Your task to perform on an android device: Open internet settings Image 0: 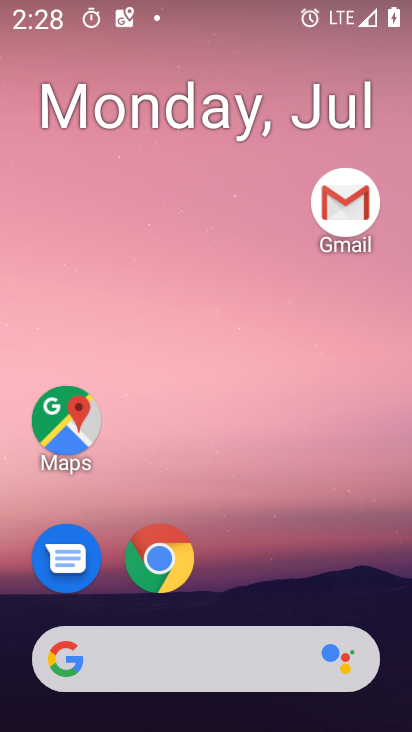
Step 0: press home button
Your task to perform on an android device: Open internet settings Image 1: 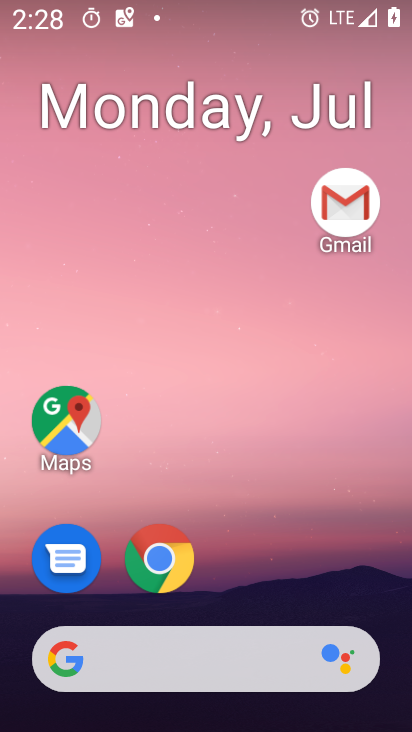
Step 1: drag from (327, 543) to (330, 72)
Your task to perform on an android device: Open internet settings Image 2: 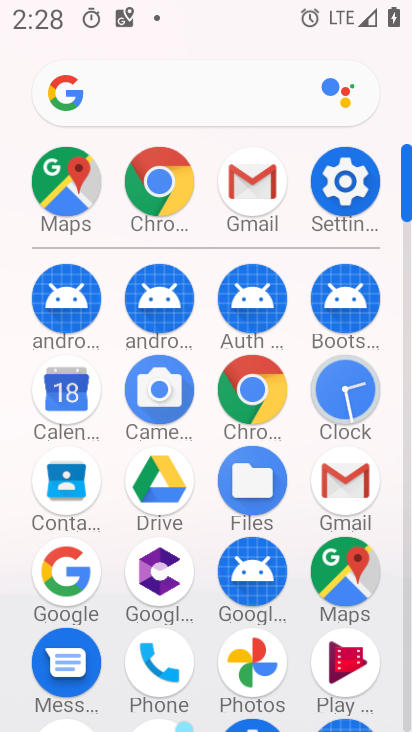
Step 2: click (351, 198)
Your task to perform on an android device: Open internet settings Image 3: 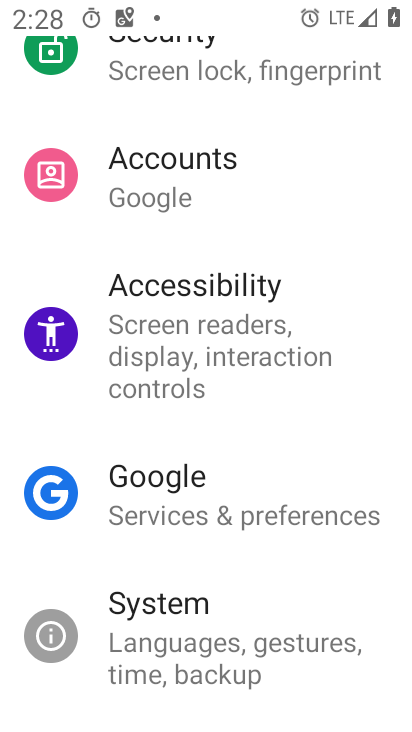
Step 3: drag from (351, 198) to (363, 262)
Your task to perform on an android device: Open internet settings Image 4: 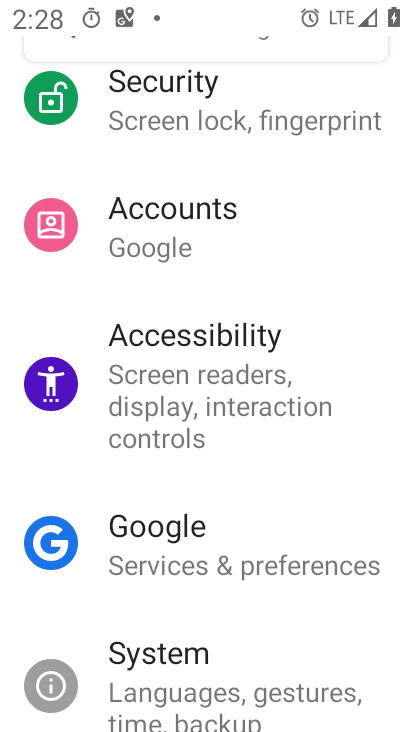
Step 4: drag from (358, 197) to (359, 286)
Your task to perform on an android device: Open internet settings Image 5: 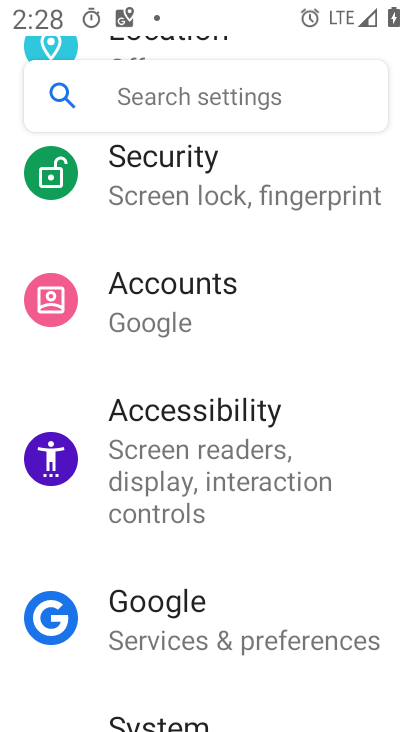
Step 5: drag from (359, 190) to (362, 301)
Your task to perform on an android device: Open internet settings Image 6: 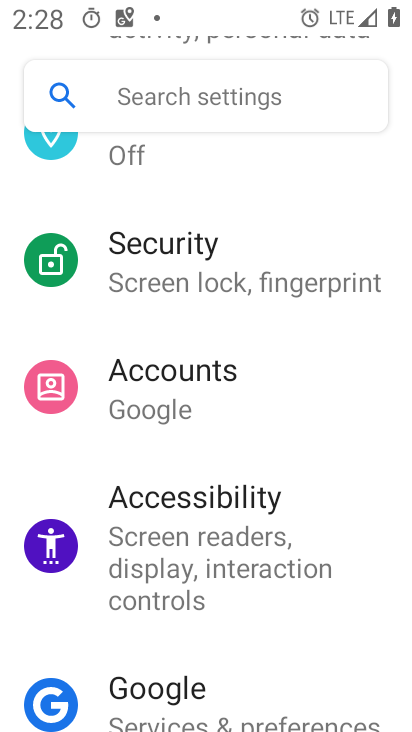
Step 6: drag from (362, 209) to (369, 304)
Your task to perform on an android device: Open internet settings Image 7: 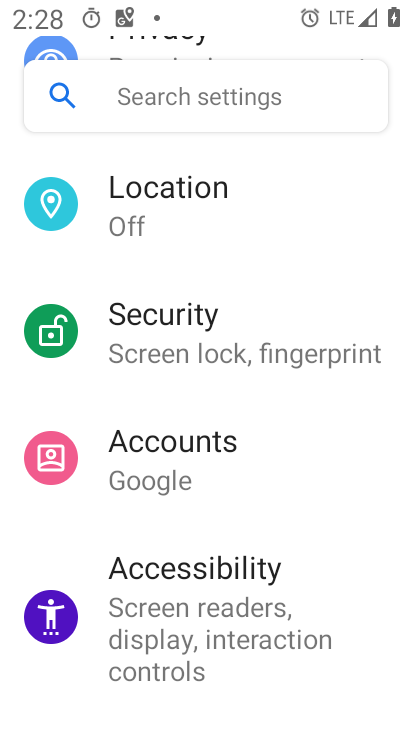
Step 7: drag from (368, 212) to (367, 303)
Your task to perform on an android device: Open internet settings Image 8: 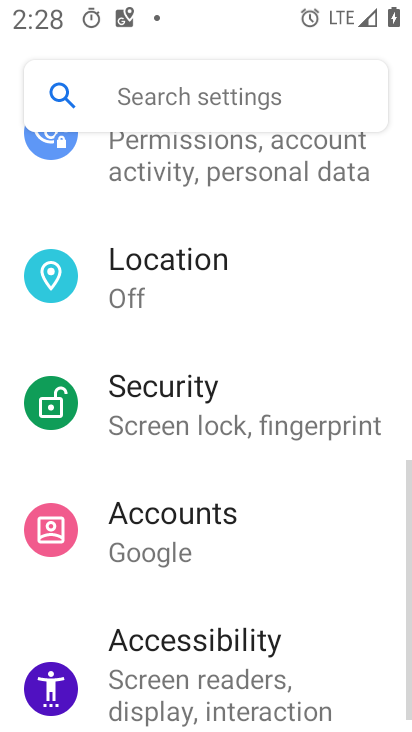
Step 8: drag from (362, 211) to (365, 307)
Your task to perform on an android device: Open internet settings Image 9: 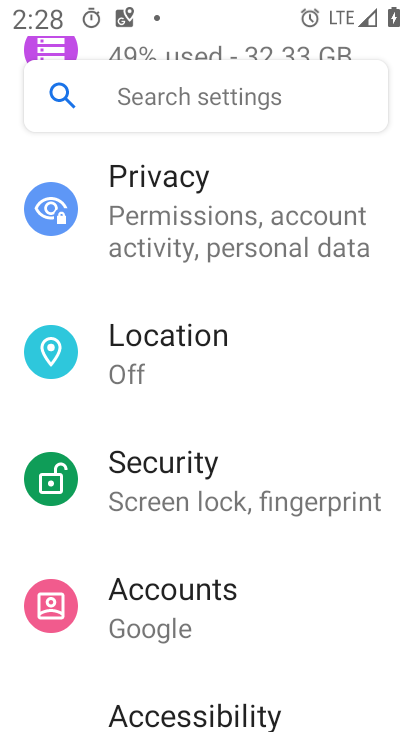
Step 9: drag from (367, 179) to (368, 302)
Your task to perform on an android device: Open internet settings Image 10: 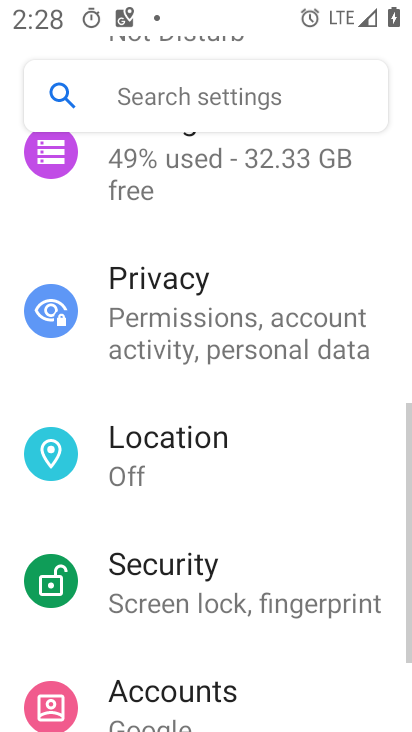
Step 10: drag from (362, 228) to (371, 384)
Your task to perform on an android device: Open internet settings Image 11: 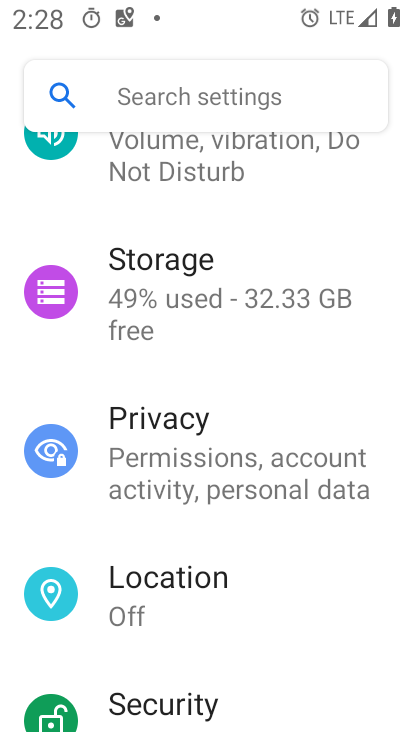
Step 11: drag from (361, 282) to (360, 419)
Your task to perform on an android device: Open internet settings Image 12: 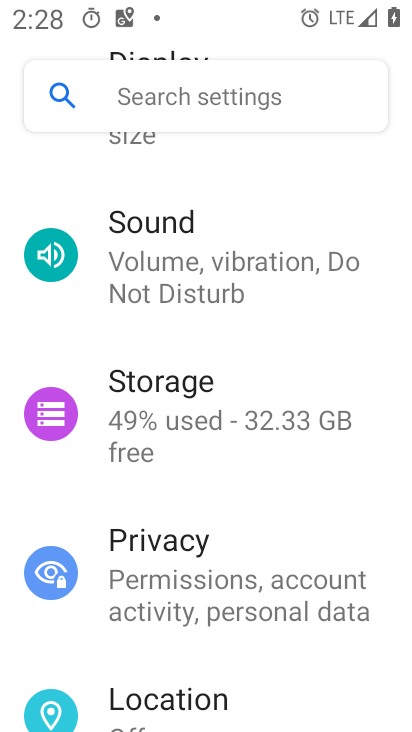
Step 12: drag from (369, 295) to (367, 381)
Your task to perform on an android device: Open internet settings Image 13: 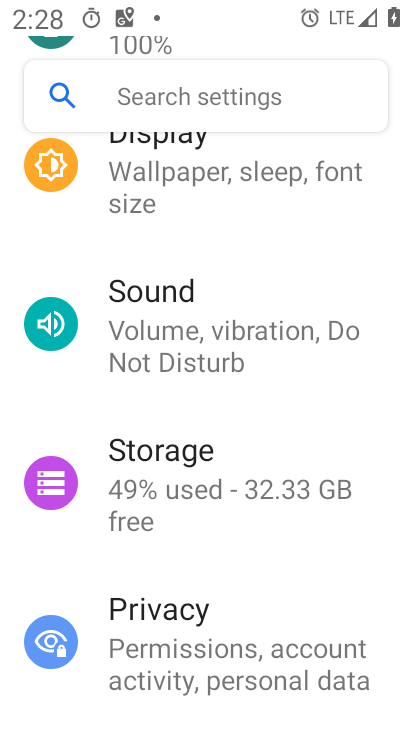
Step 13: drag from (361, 233) to (360, 347)
Your task to perform on an android device: Open internet settings Image 14: 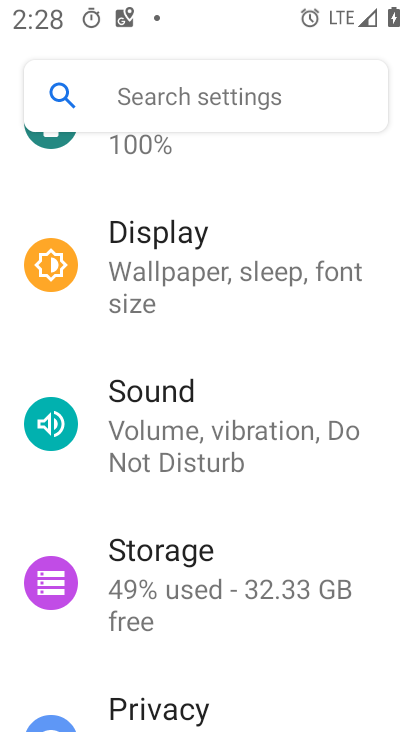
Step 14: drag from (363, 211) to (366, 337)
Your task to perform on an android device: Open internet settings Image 15: 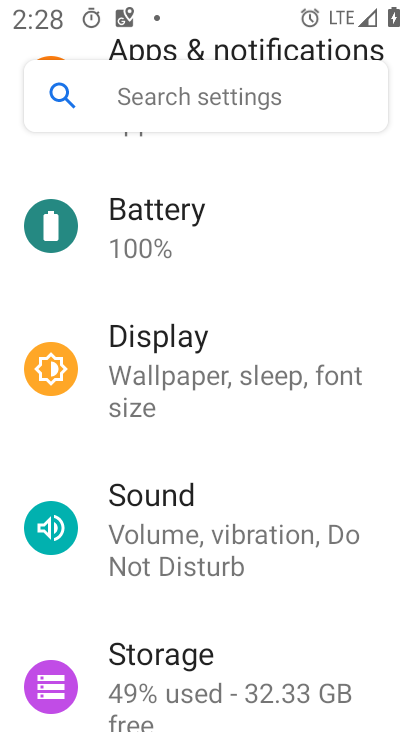
Step 15: drag from (365, 195) to (366, 348)
Your task to perform on an android device: Open internet settings Image 16: 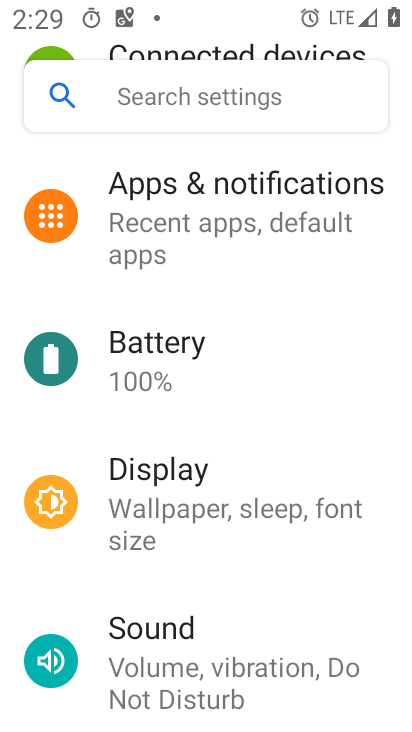
Step 16: drag from (379, 156) to (380, 347)
Your task to perform on an android device: Open internet settings Image 17: 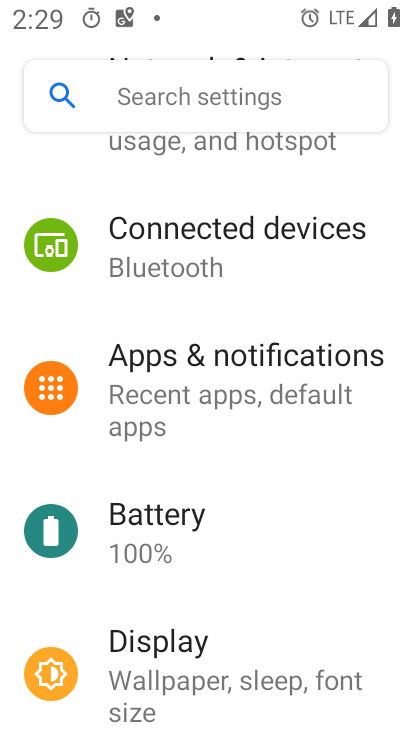
Step 17: drag from (363, 159) to (366, 324)
Your task to perform on an android device: Open internet settings Image 18: 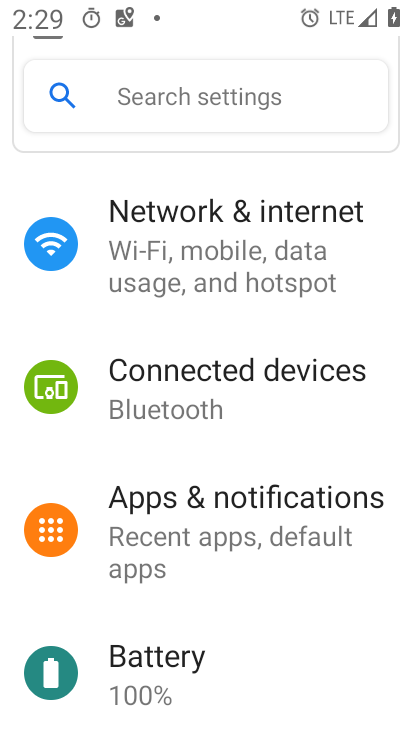
Step 18: click (323, 247)
Your task to perform on an android device: Open internet settings Image 19: 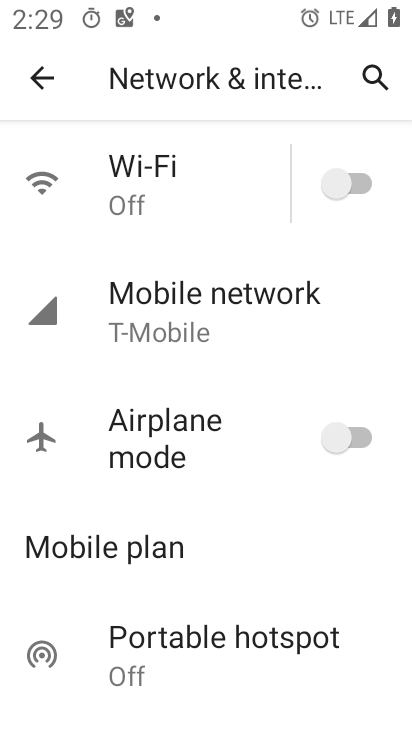
Step 19: task complete